Your task to perform on an android device: delete the emails in spam in the gmail app Image 0: 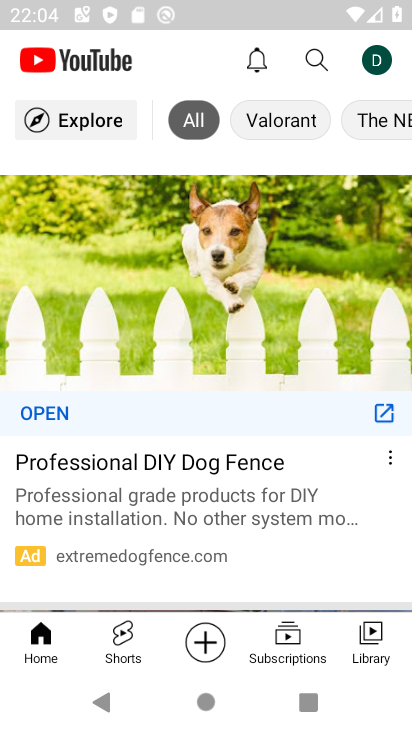
Step 0: press home button
Your task to perform on an android device: delete the emails in spam in the gmail app Image 1: 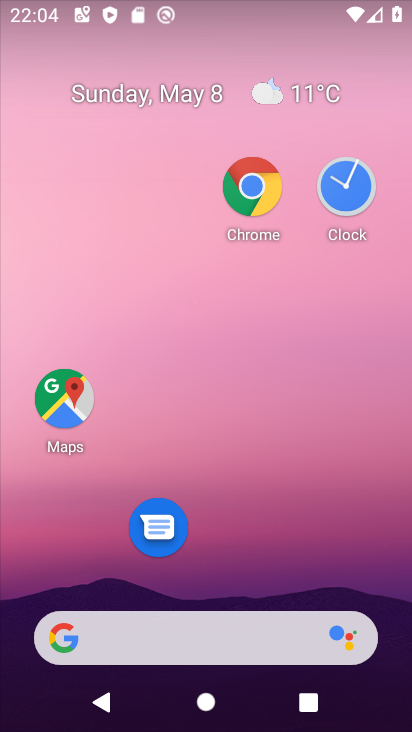
Step 1: drag from (213, 527) to (229, 67)
Your task to perform on an android device: delete the emails in spam in the gmail app Image 2: 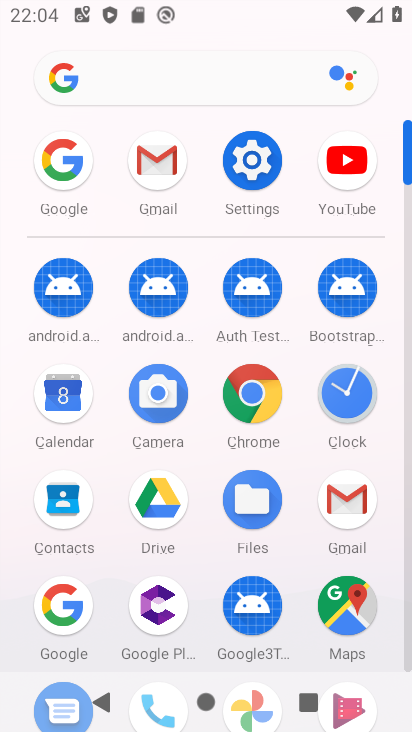
Step 2: click (163, 159)
Your task to perform on an android device: delete the emails in spam in the gmail app Image 3: 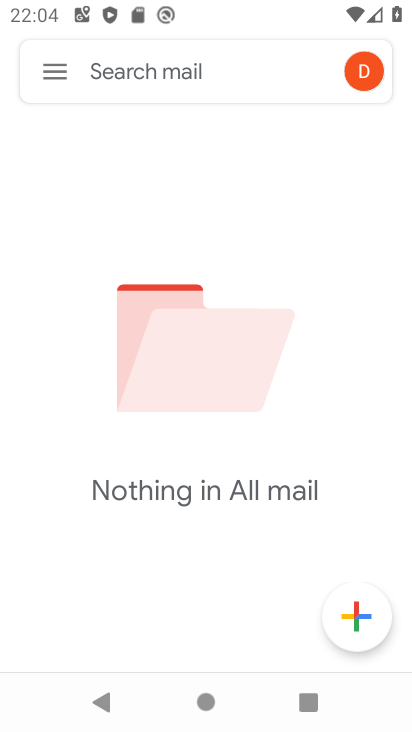
Step 3: click (61, 71)
Your task to perform on an android device: delete the emails in spam in the gmail app Image 4: 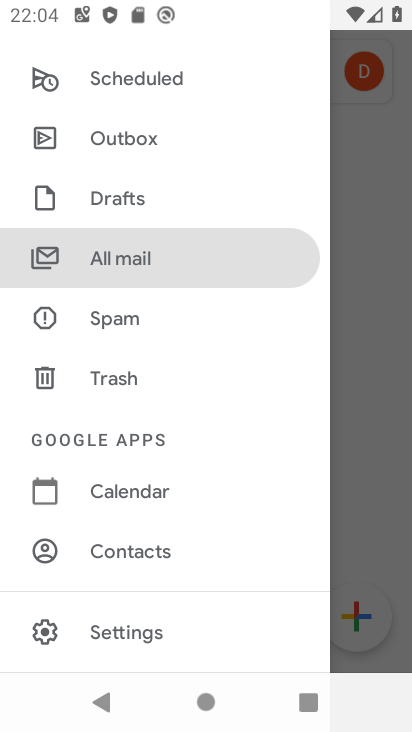
Step 4: click (237, 325)
Your task to perform on an android device: delete the emails in spam in the gmail app Image 5: 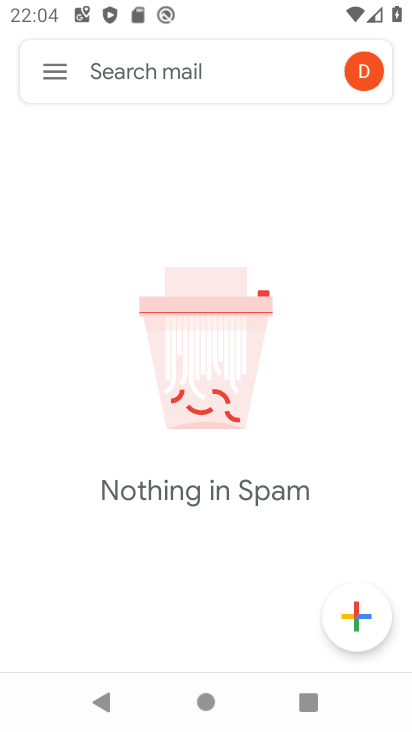
Step 5: task complete